Your task to perform on an android device: Open Yahoo.com Image 0: 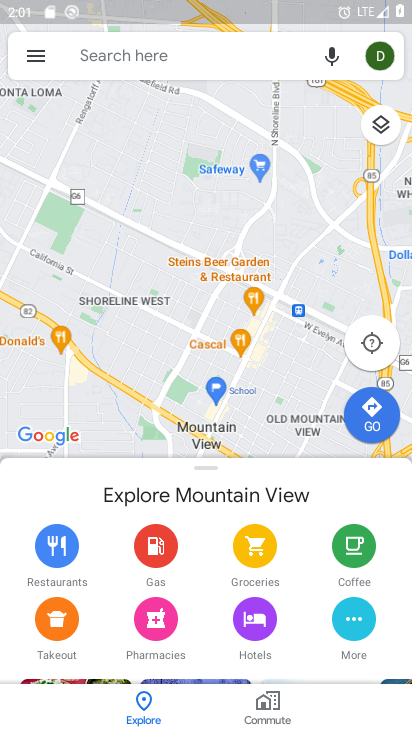
Step 0: press home button
Your task to perform on an android device: Open Yahoo.com Image 1: 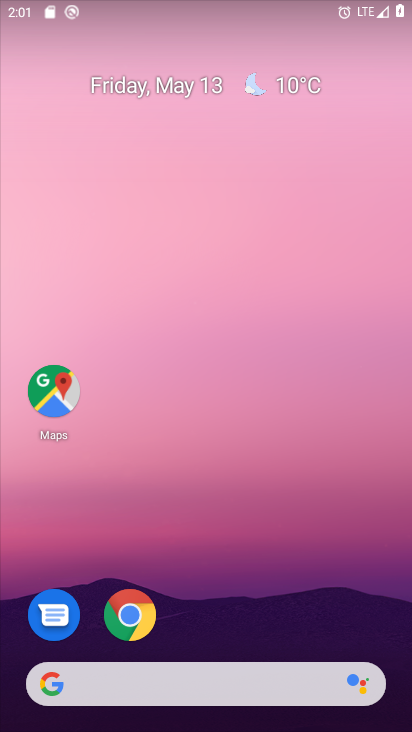
Step 1: click (164, 685)
Your task to perform on an android device: Open Yahoo.com Image 2: 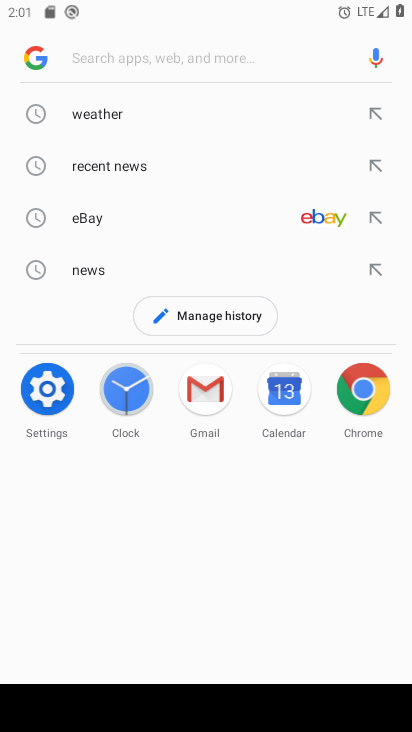
Step 2: type "yahoo.com"
Your task to perform on an android device: Open Yahoo.com Image 3: 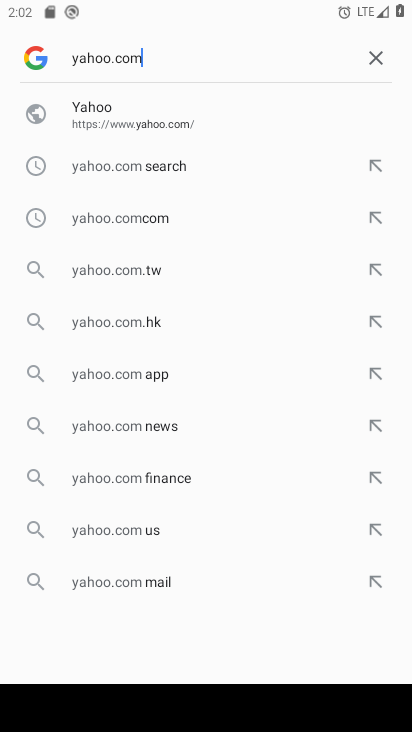
Step 3: click (57, 104)
Your task to perform on an android device: Open Yahoo.com Image 4: 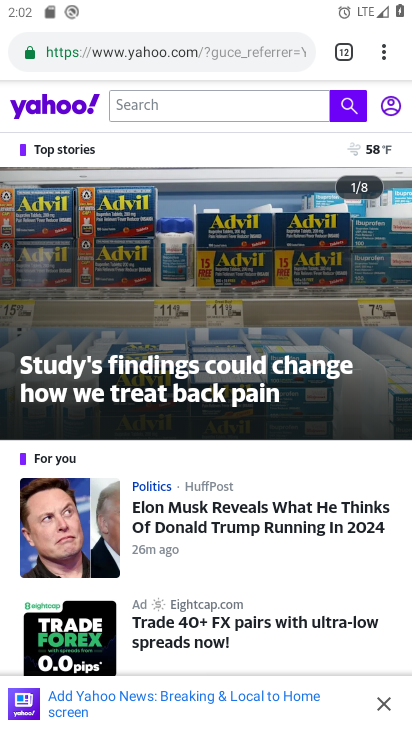
Step 4: task complete